Your task to perform on an android device: Open the Play Movies app and select the watchlist tab. Image 0: 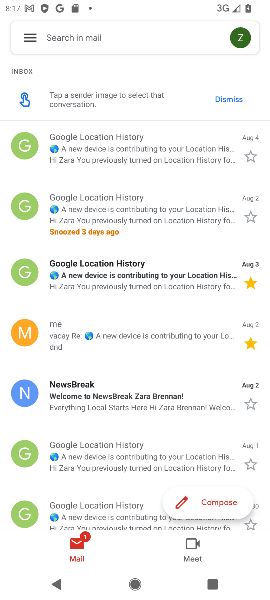
Step 0: press home button
Your task to perform on an android device: Open the Play Movies app and select the watchlist tab. Image 1: 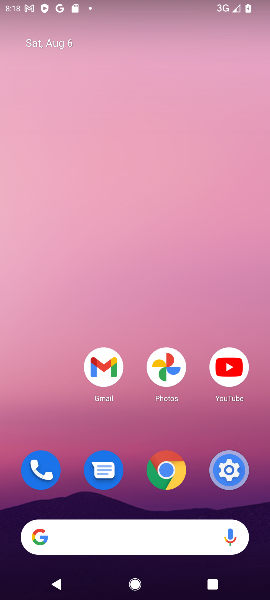
Step 1: task complete